Your task to perform on an android device: Open notification settings Image 0: 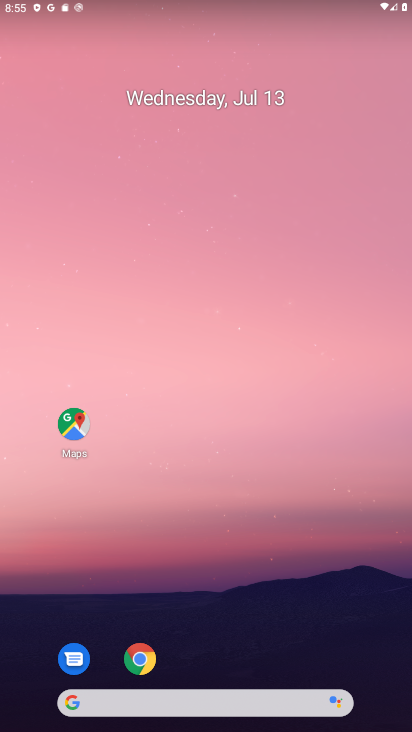
Step 0: drag from (319, 644) to (396, 263)
Your task to perform on an android device: Open notification settings Image 1: 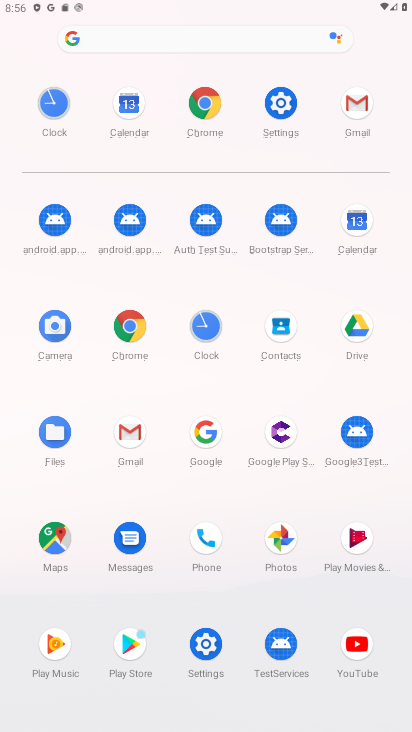
Step 1: click (270, 123)
Your task to perform on an android device: Open notification settings Image 2: 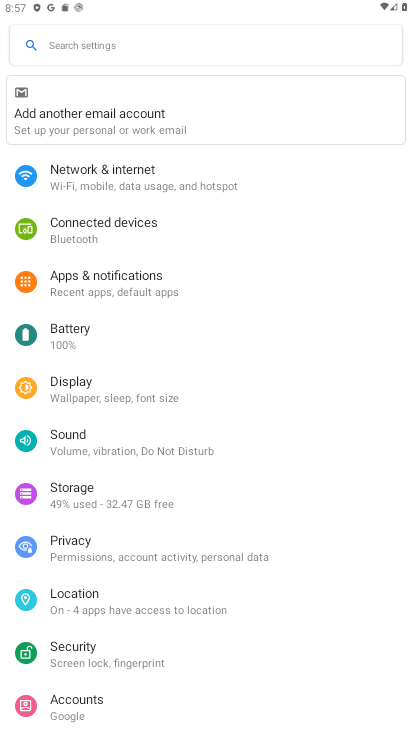
Step 2: click (131, 302)
Your task to perform on an android device: Open notification settings Image 3: 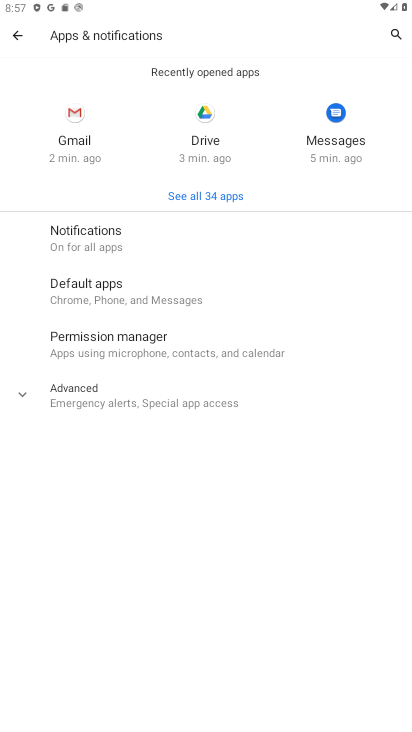
Step 3: task complete